Your task to perform on an android device: change the clock display to show seconds Image 0: 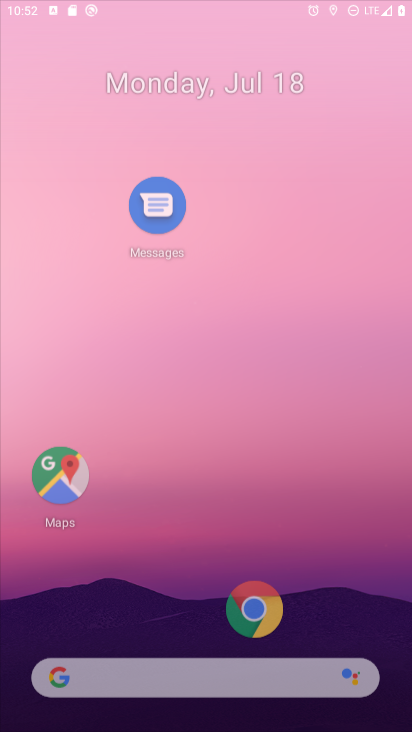
Step 0: drag from (189, 681) to (289, 1)
Your task to perform on an android device: change the clock display to show seconds Image 1: 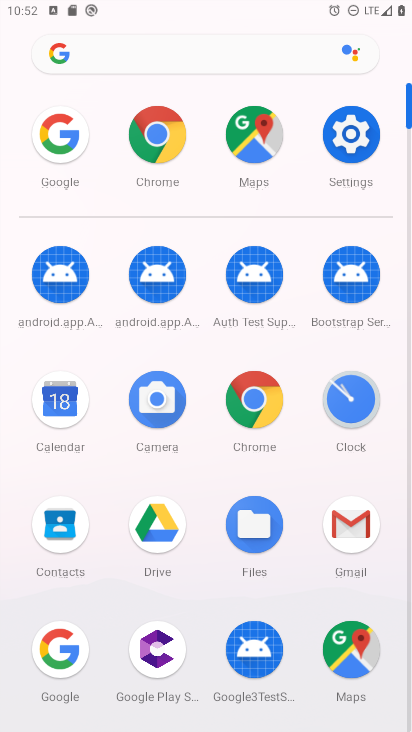
Step 1: click (363, 151)
Your task to perform on an android device: change the clock display to show seconds Image 2: 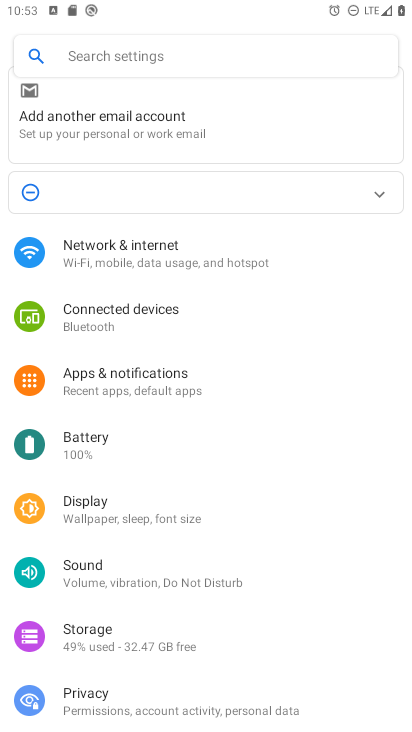
Step 2: drag from (183, 578) to (220, 407)
Your task to perform on an android device: change the clock display to show seconds Image 3: 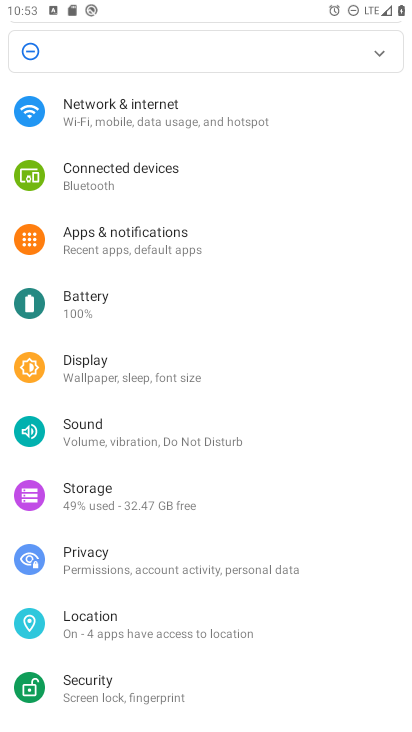
Step 3: press home button
Your task to perform on an android device: change the clock display to show seconds Image 4: 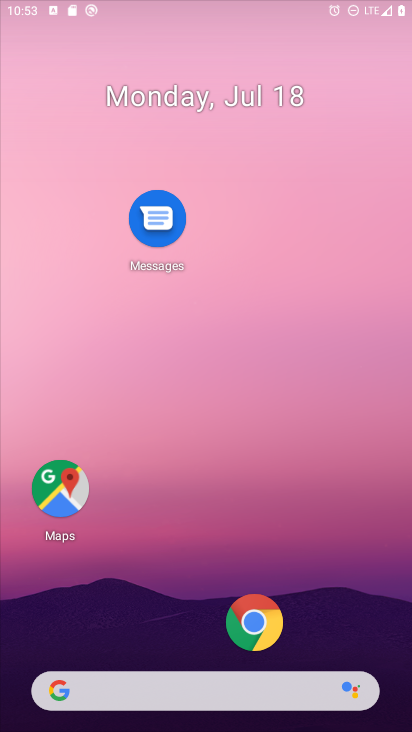
Step 4: drag from (228, 704) to (261, 172)
Your task to perform on an android device: change the clock display to show seconds Image 5: 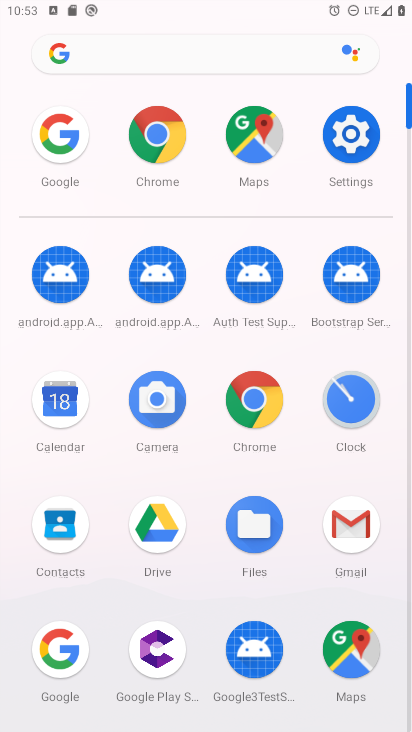
Step 5: click (355, 424)
Your task to perform on an android device: change the clock display to show seconds Image 6: 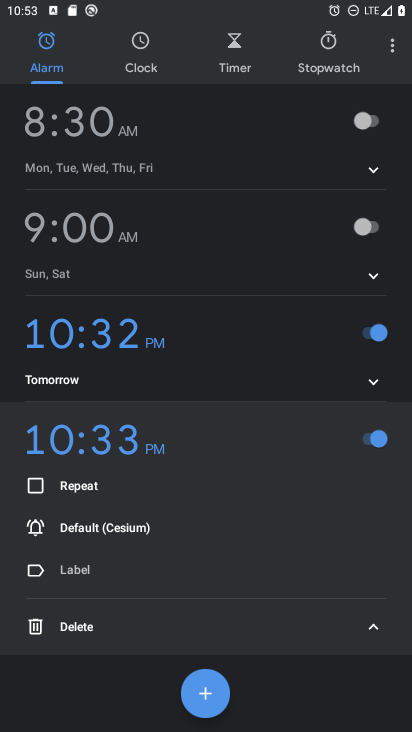
Step 6: click (397, 46)
Your task to perform on an android device: change the clock display to show seconds Image 7: 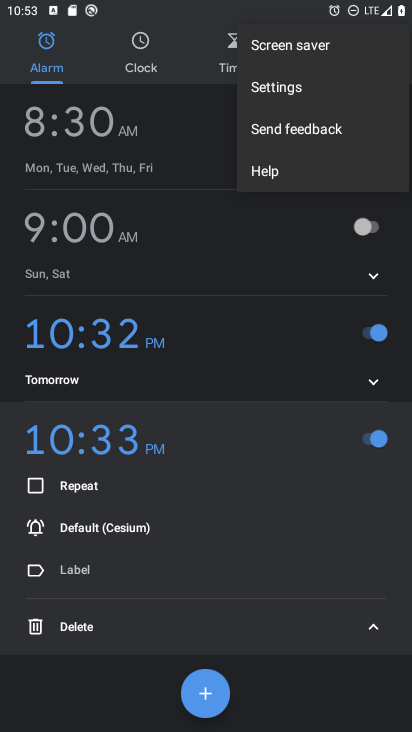
Step 7: click (304, 95)
Your task to perform on an android device: change the clock display to show seconds Image 8: 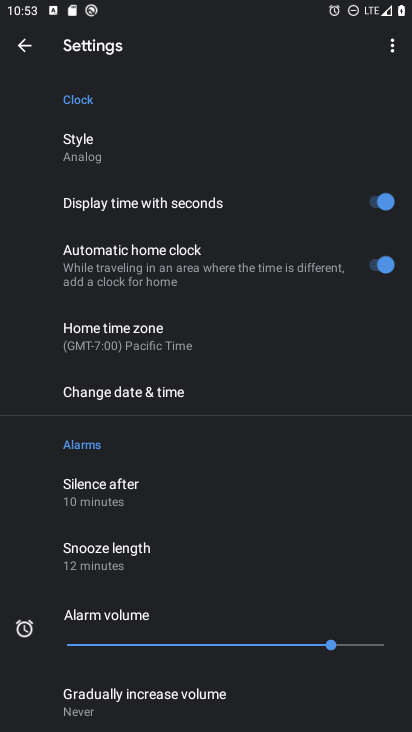
Step 8: task complete